Your task to perform on an android device: Is it going to rain this weekend? Image 0: 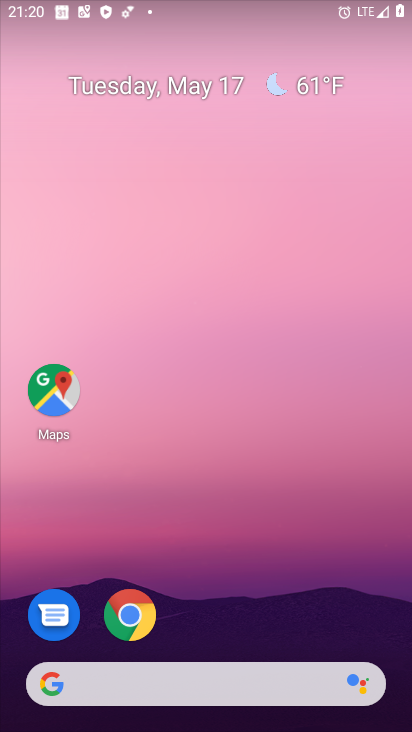
Step 0: click (314, 89)
Your task to perform on an android device: Is it going to rain this weekend? Image 1: 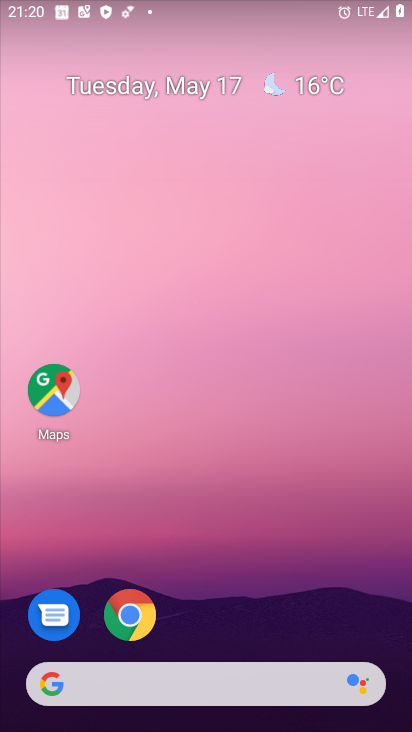
Step 1: click (337, 88)
Your task to perform on an android device: Is it going to rain this weekend? Image 2: 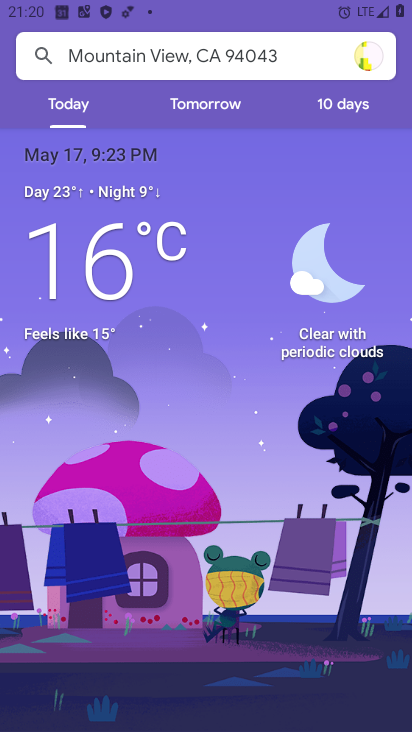
Step 2: click (350, 100)
Your task to perform on an android device: Is it going to rain this weekend? Image 3: 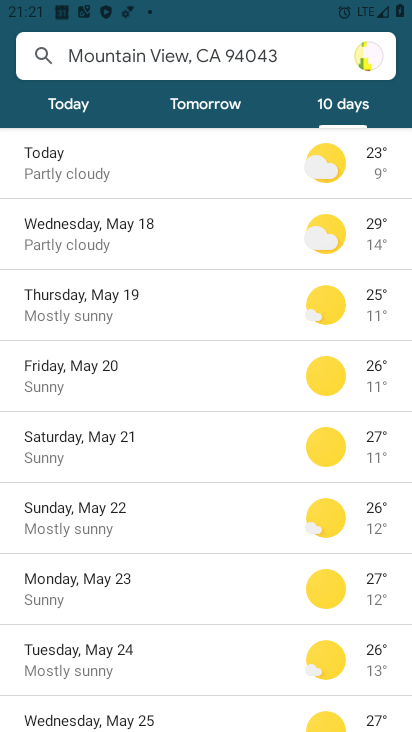
Step 3: task complete